Your task to perform on an android device: Empty the shopping cart on bestbuy.com. Add "lenovo thinkpad" to the cart on bestbuy.com Image 0: 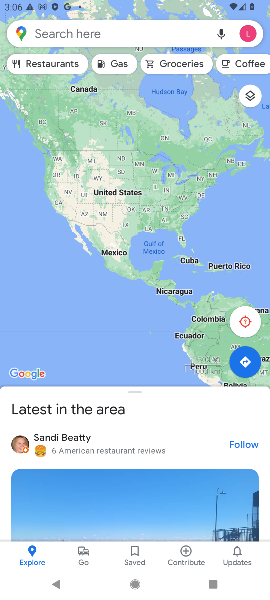
Step 0: press home button
Your task to perform on an android device: Empty the shopping cart on bestbuy.com. Add "lenovo thinkpad" to the cart on bestbuy.com Image 1: 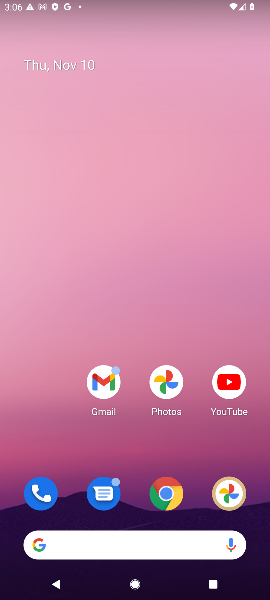
Step 1: drag from (122, 504) to (128, 196)
Your task to perform on an android device: Empty the shopping cart on bestbuy.com. Add "lenovo thinkpad" to the cart on bestbuy.com Image 2: 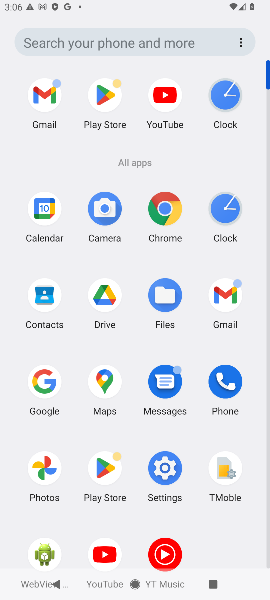
Step 2: click (48, 377)
Your task to perform on an android device: Empty the shopping cart on bestbuy.com. Add "lenovo thinkpad" to the cart on bestbuy.com Image 3: 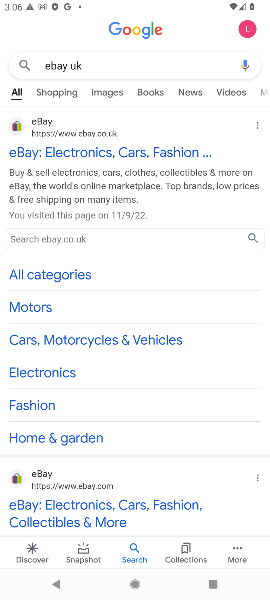
Step 3: click (106, 69)
Your task to perform on an android device: Empty the shopping cart on bestbuy.com. Add "lenovo thinkpad" to the cart on bestbuy.com Image 4: 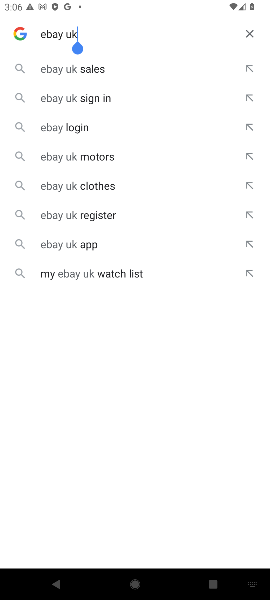
Step 4: click (251, 24)
Your task to perform on an android device: Empty the shopping cart on bestbuy.com. Add "lenovo thinkpad" to the cart on bestbuy.com Image 5: 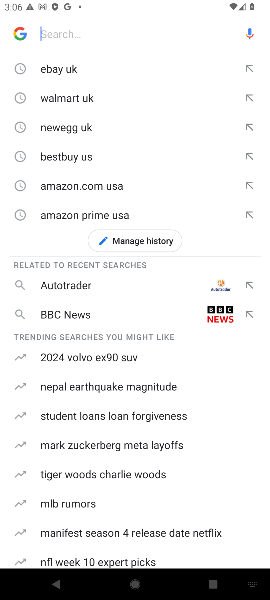
Step 5: click (56, 155)
Your task to perform on an android device: Empty the shopping cart on bestbuy.com. Add "lenovo thinkpad" to the cart on bestbuy.com Image 6: 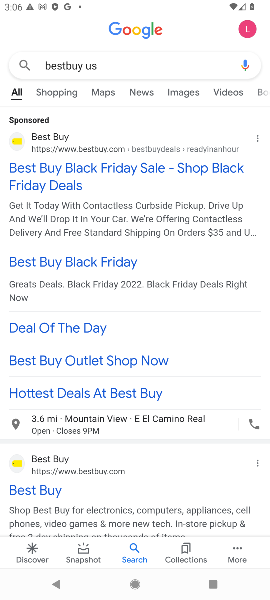
Step 6: click (17, 138)
Your task to perform on an android device: Empty the shopping cart on bestbuy.com. Add "lenovo thinkpad" to the cart on bestbuy.com Image 7: 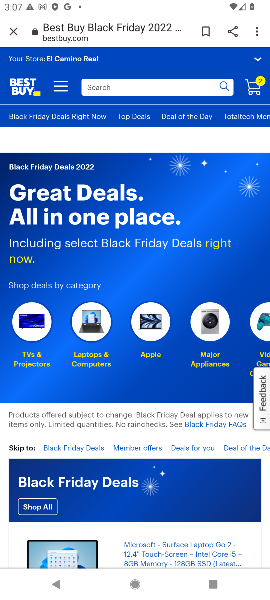
Step 7: click (164, 79)
Your task to perform on an android device: Empty the shopping cart on bestbuy.com. Add "lenovo thinkpad" to the cart on bestbuy.com Image 8: 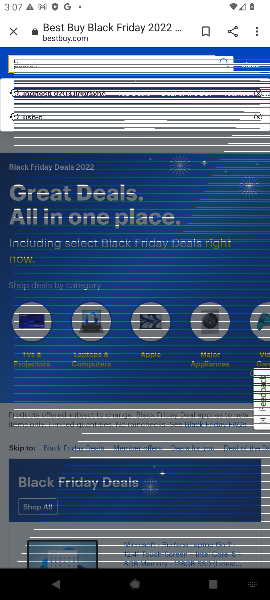
Step 8: type "lenovo thinkpad "
Your task to perform on an android device: Empty the shopping cart on bestbuy.com. Add "lenovo thinkpad" to the cart on bestbuy.com Image 9: 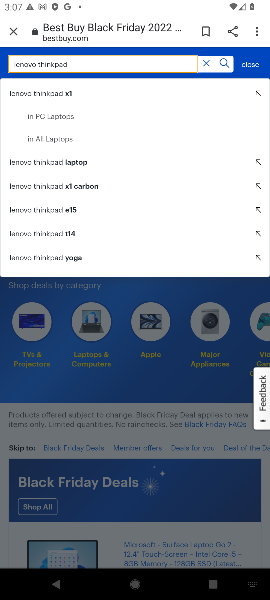
Step 9: click (44, 95)
Your task to perform on an android device: Empty the shopping cart on bestbuy.com. Add "lenovo thinkpad" to the cart on bestbuy.com Image 10: 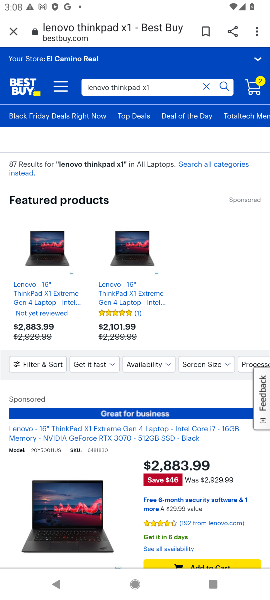
Step 10: drag from (235, 537) to (209, 395)
Your task to perform on an android device: Empty the shopping cart on bestbuy.com. Add "lenovo thinkpad" to the cart on bestbuy.com Image 11: 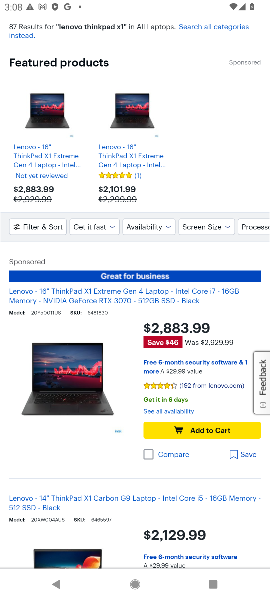
Step 11: click (200, 427)
Your task to perform on an android device: Empty the shopping cart on bestbuy.com. Add "lenovo thinkpad" to the cart on bestbuy.com Image 12: 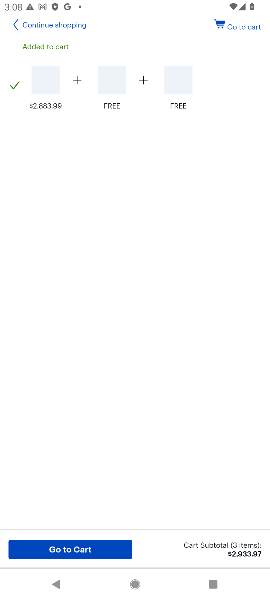
Step 12: task complete